Your task to perform on an android device: Open Google Chrome and open the bookmarks view Image 0: 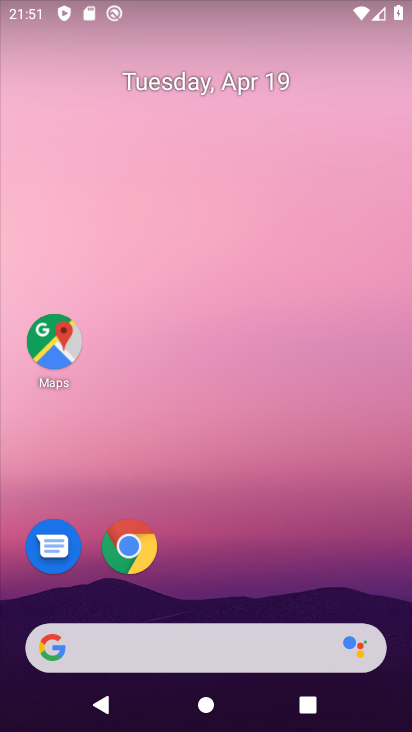
Step 0: drag from (197, 585) to (214, 167)
Your task to perform on an android device: Open Google Chrome and open the bookmarks view Image 1: 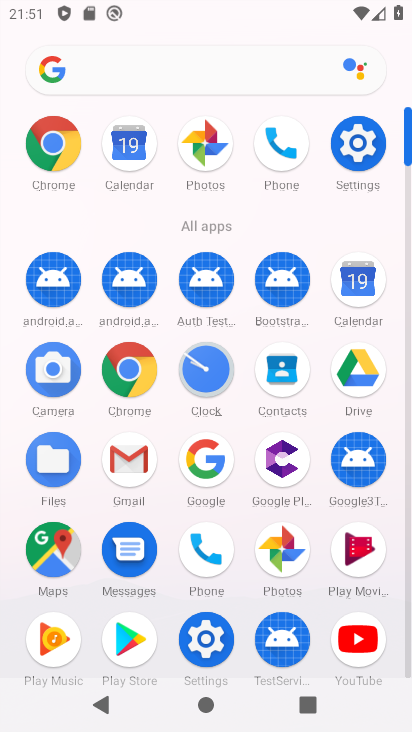
Step 1: click (132, 390)
Your task to perform on an android device: Open Google Chrome and open the bookmarks view Image 2: 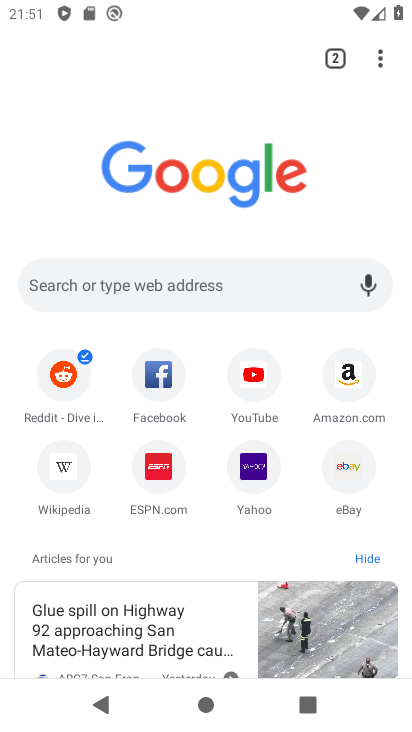
Step 2: click (341, 262)
Your task to perform on an android device: Open Google Chrome and open the bookmarks view Image 3: 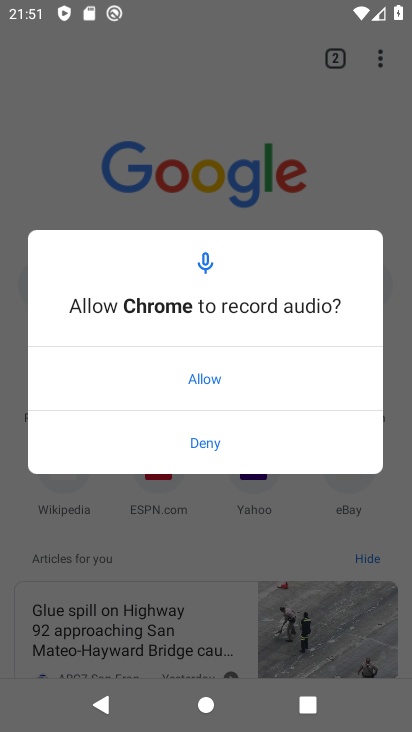
Step 3: click (263, 365)
Your task to perform on an android device: Open Google Chrome and open the bookmarks view Image 4: 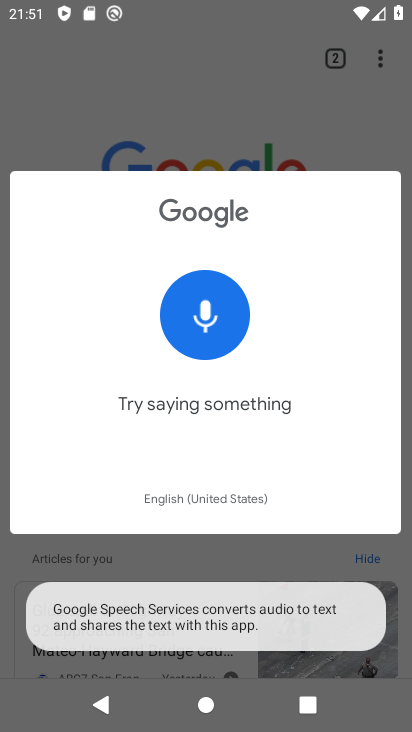
Step 4: click (279, 124)
Your task to perform on an android device: Open Google Chrome and open the bookmarks view Image 5: 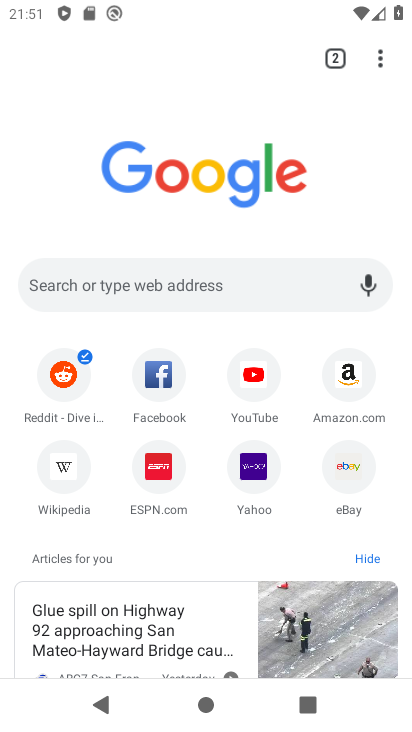
Step 5: click (373, 67)
Your task to perform on an android device: Open Google Chrome and open the bookmarks view Image 6: 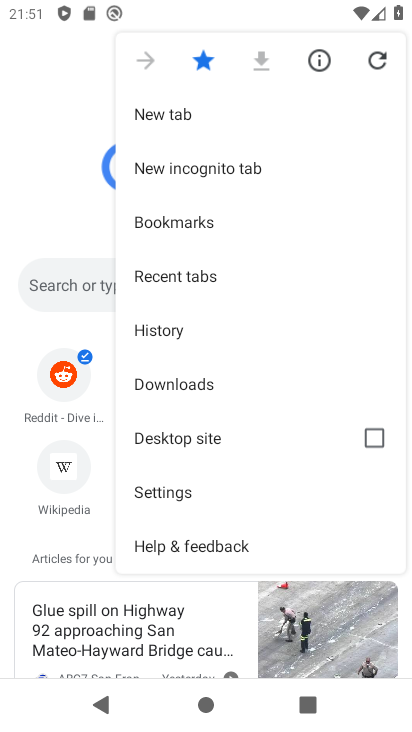
Step 6: click (182, 224)
Your task to perform on an android device: Open Google Chrome and open the bookmarks view Image 7: 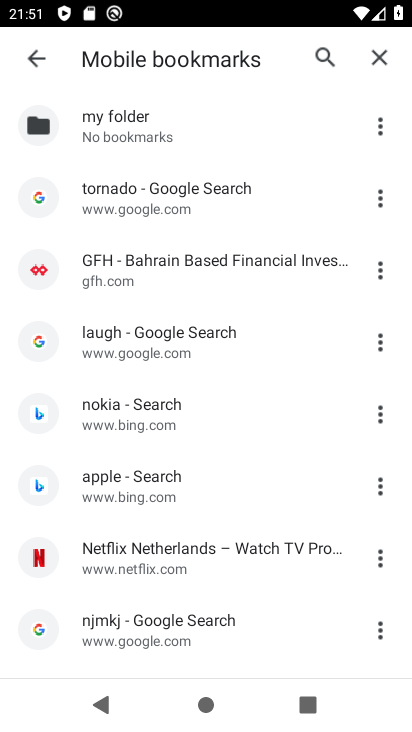
Step 7: task complete